Your task to perform on an android device: Go to notification settings Image 0: 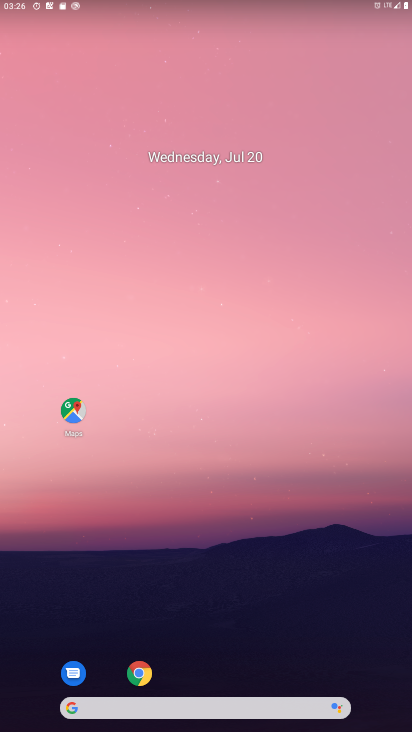
Step 0: drag from (195, 583) to (193, 95)
Your task to perform on an android device: Go to notification settings Image 1: 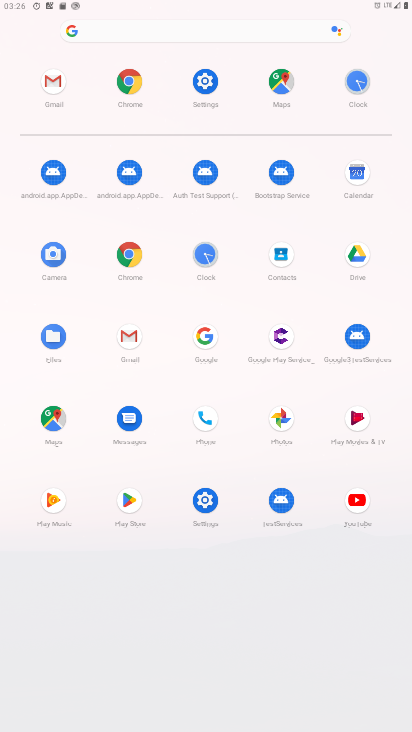
Step 1: click (207, 510)
Your task to perform on an android device: Go to notification settings Image 2: 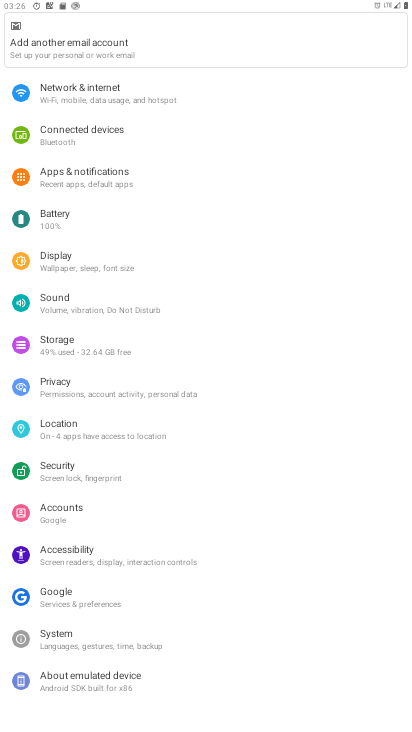
Step 2: click (111, 182)
Your task to perform on an android device: Go to notification settings Image 3: 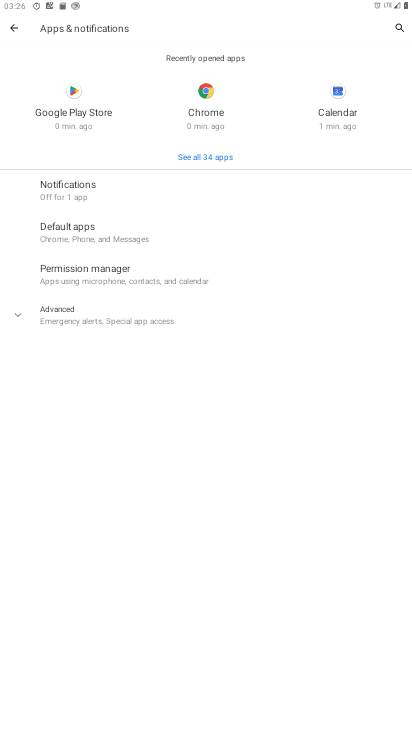
Step 3: click (76, 195)
Your task to perform on an android device: Go to notification settings Image 4: 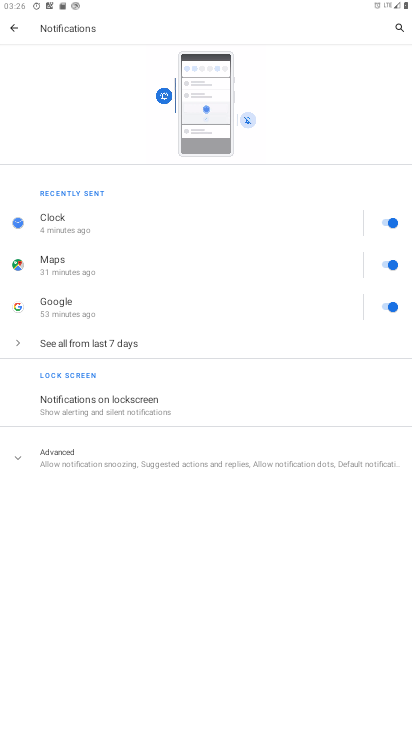
Step 4: task complete